Your task to perform on an android device: What is the news today? Image 0: 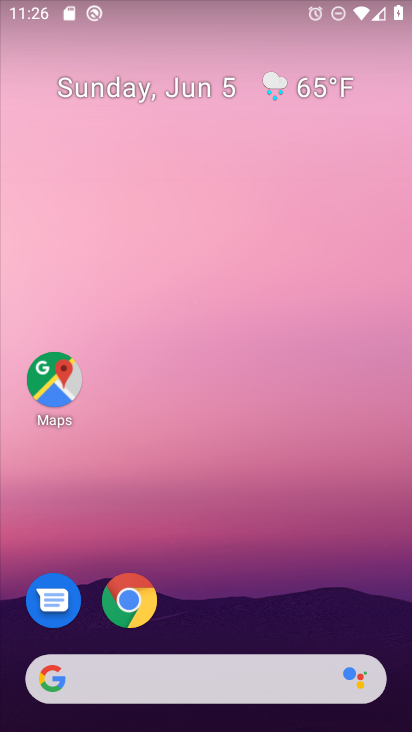
Step 0: drag from (377, 640) to (244, 37)
Your task to perform on an android device: What is the news today? Image 1: 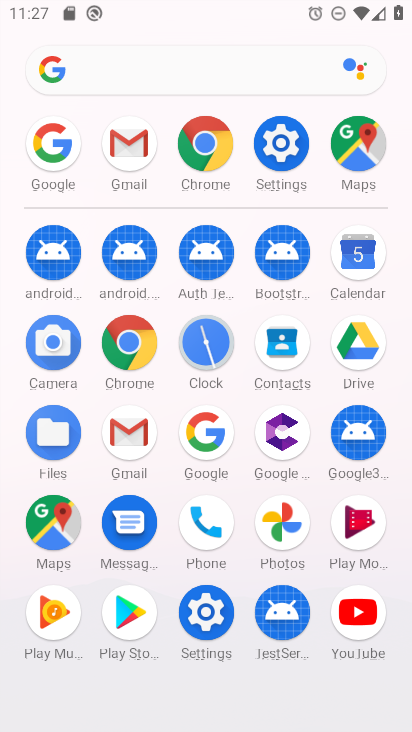
Step 1: click (203, 437)
Your task to perform on an android device: What is the news today? Image 2: 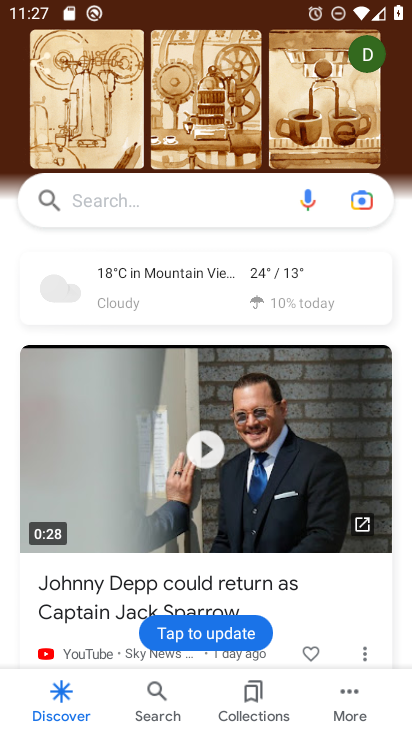
Step 2: click (153, 209)
Your task to perform on an android device: What is the news today? Image 3: 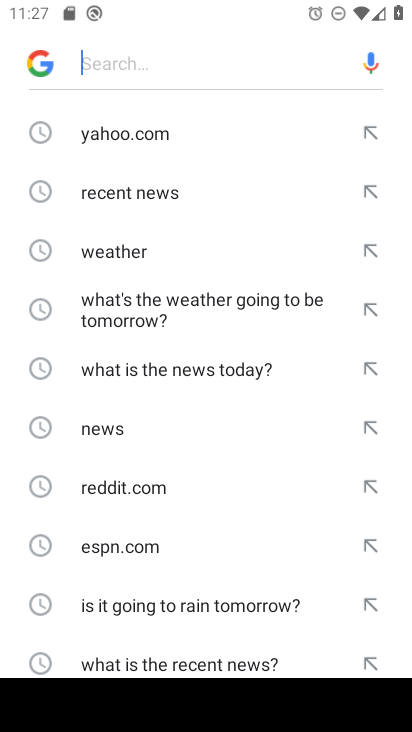
Step 3: click (198, 359)
Your task to perform on an android device: What is the news today? Image 4: 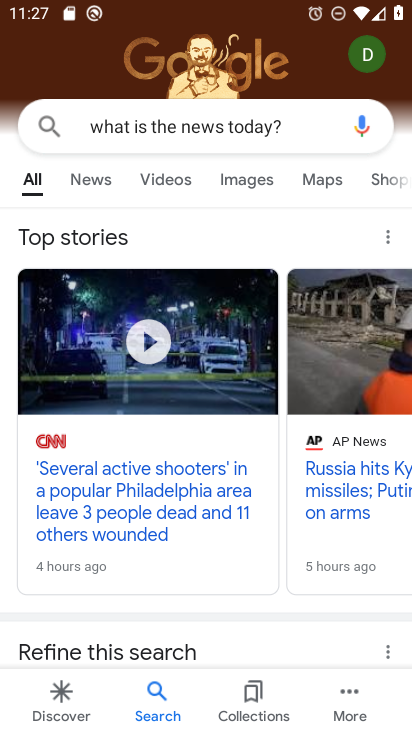
Step 4: task complete